Your task to perform on an android device: Go to Android settings Image 0: 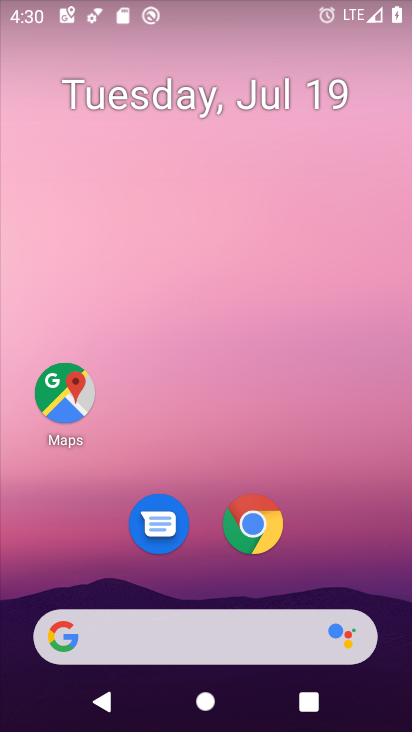
Step 0: drag from (331, 513) to (305, 39)
Your task to perform on an android device: Go to Android settings Image 1: 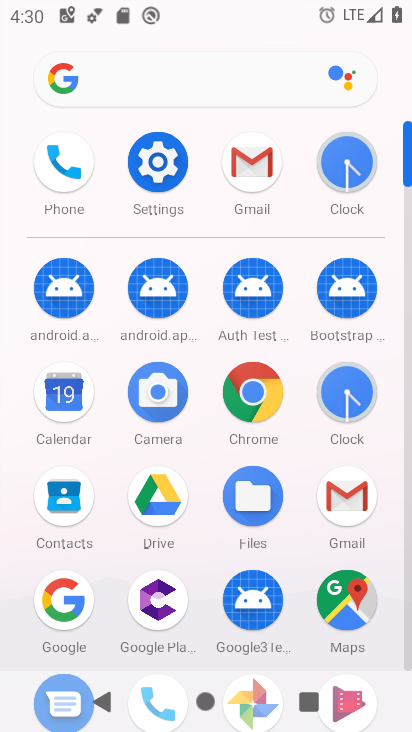
Step 1: click (153, 168)
Your task to perform on an android device: Go to Android settings Image 2: 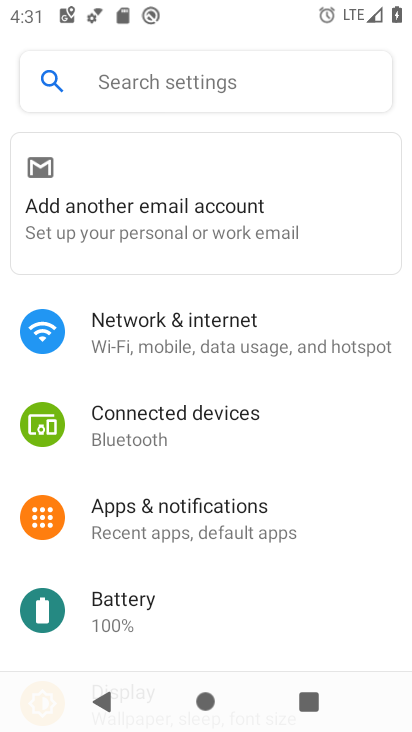
Step 2: drag from (265, 602) to (294, 170)
Your task to perform on an android device: Go to Android settings Image 3: 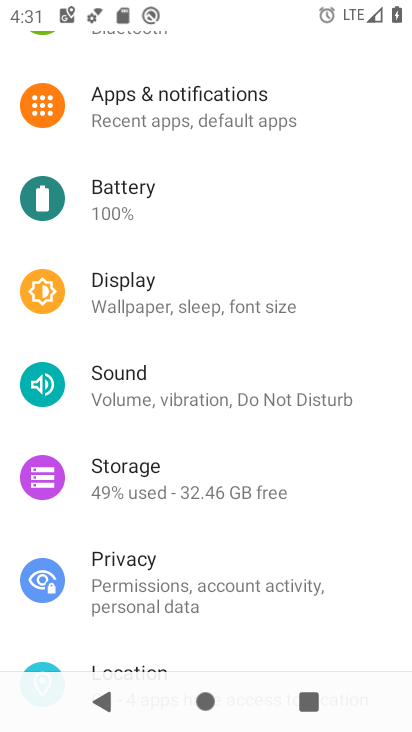
Step 3: drag from (220, 524) to (271, 106)
Your task to perform on an android device: Go to Android settings Image 4: 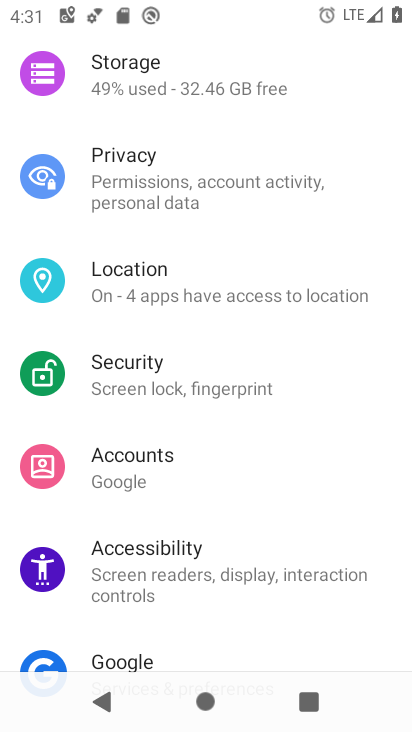
Step 4: drag from (206, 469) to (233, 99)
Your task to perform on an android device: Go to Android settings Image 5: 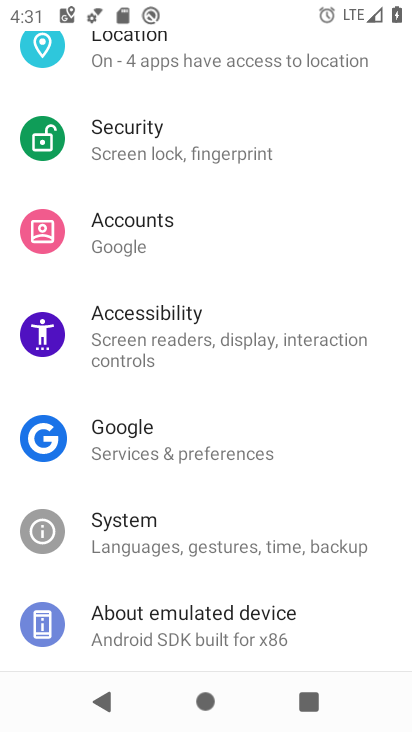
Step 5: click (212, 628)
Your task to perform on an android device: Go to Android settings Image 6: 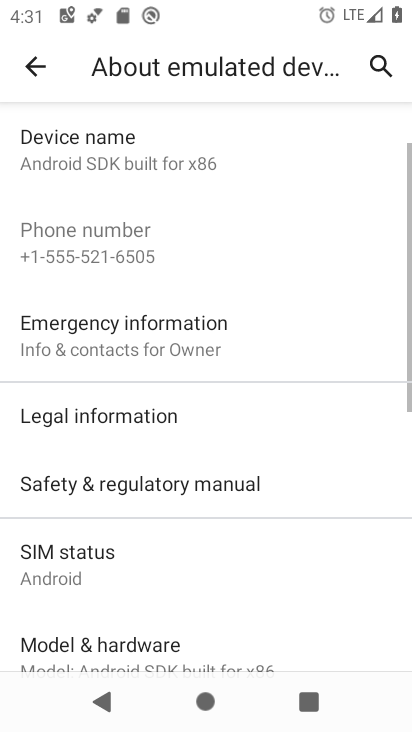
Step 6: task complete